Your task to perform on an android device: check data usage Image 0: 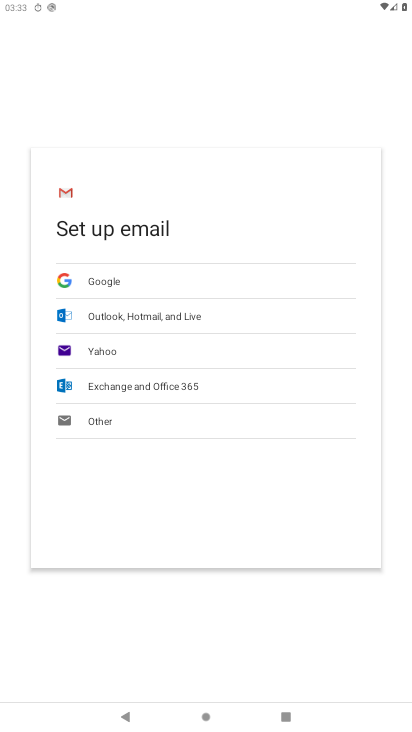
Step 0: press home button
Your task to perform on an android device: check data usage Image 1: 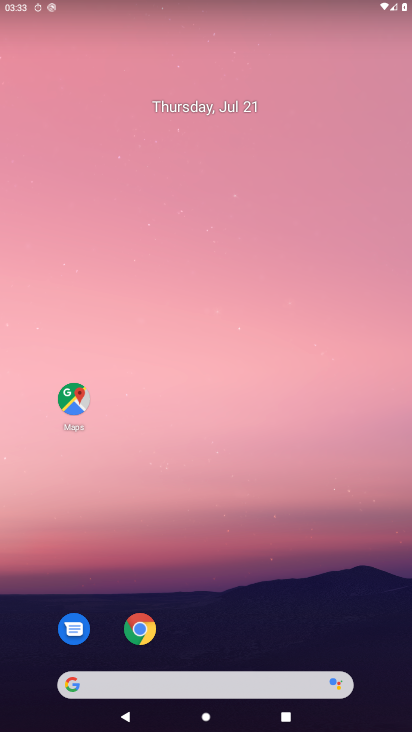
Step 1: drag from (41, 679) to (161, 275)
Your task to perform on an android device: check data usage Image 2: 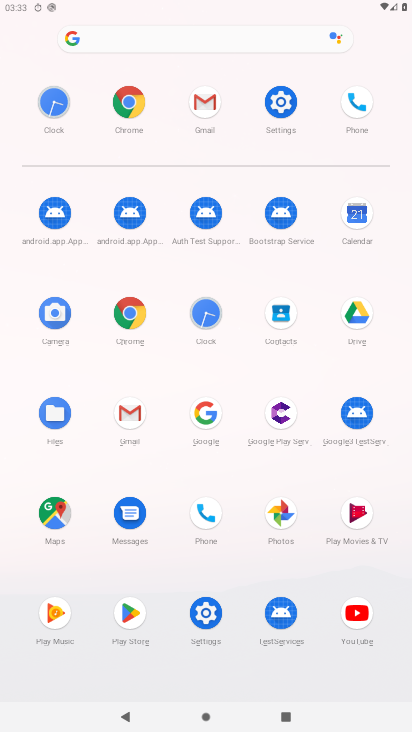
Step 2: click (205, 631)
Your task to perform on an android device: check data usage Image 3: 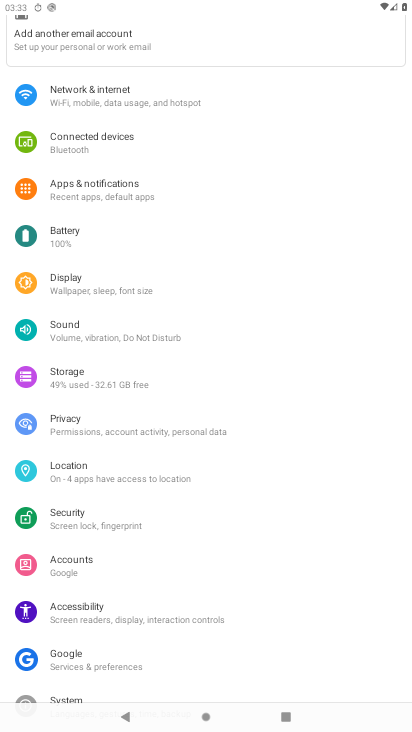
Step 3: click (64, 103)
Your task to perform on an android device: check data usage Image 4: 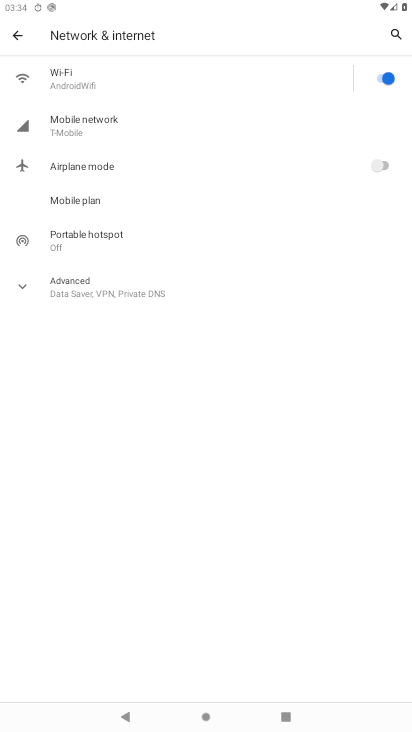
Step 4: click (67, 132)
Your task to perform on an android device: check data usage Image 5: 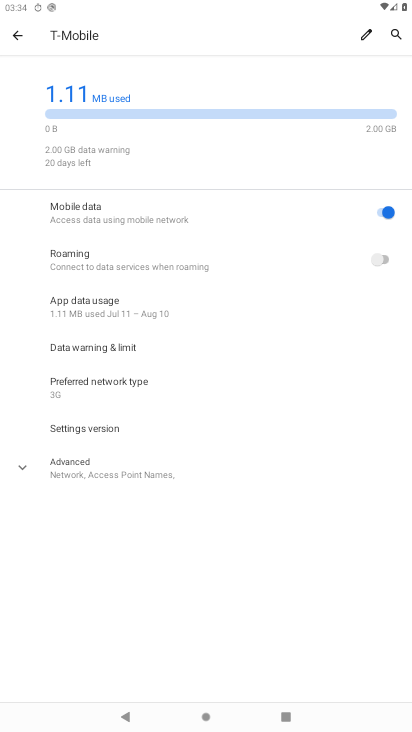
Step 5: task complete